Your task to perform on an android device: Empty the shopping cart on costco. Add bose soundsport free to the cart on costco, then select checkout. Image 0: 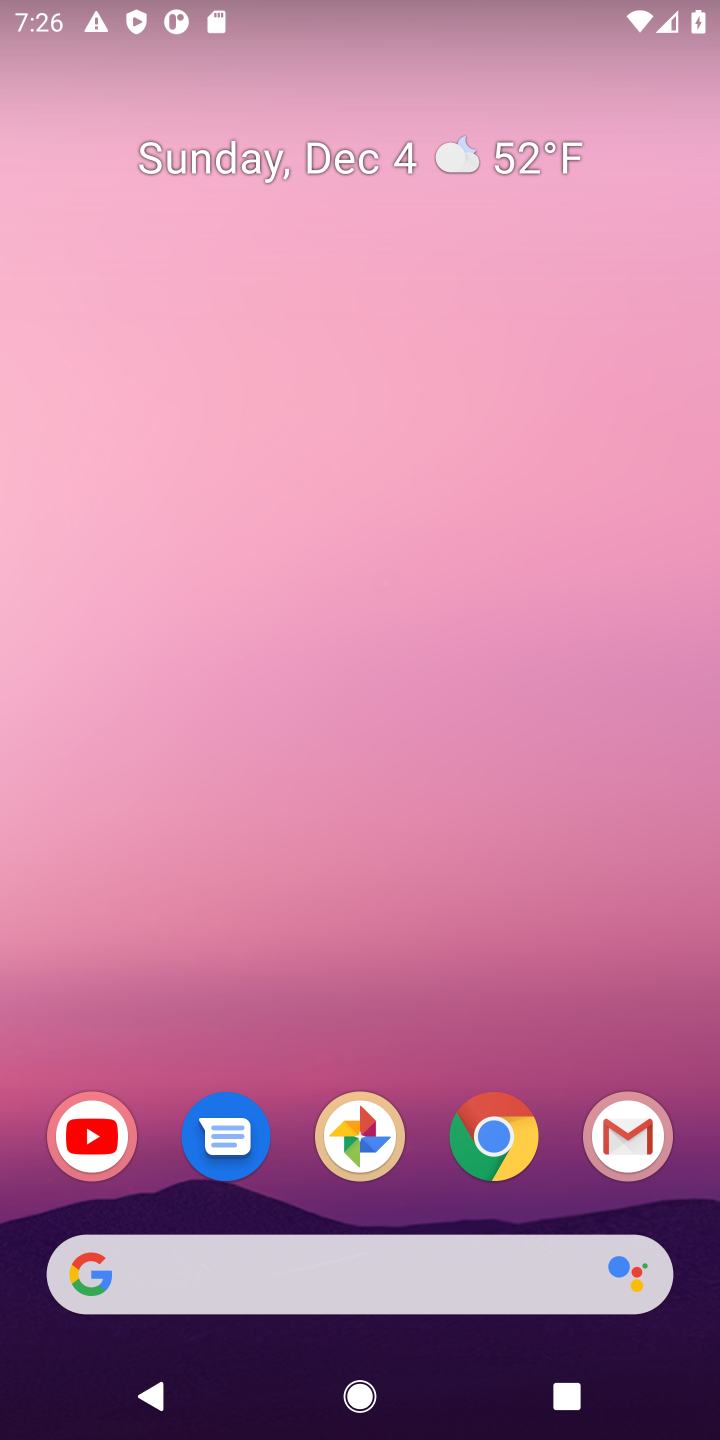
Step 0: click (508, 1136)
Your task to perform on an android device: Empty the shopping cart on costco. Add bose soundsport free to the cart on costco, then select checkout. Image 1: 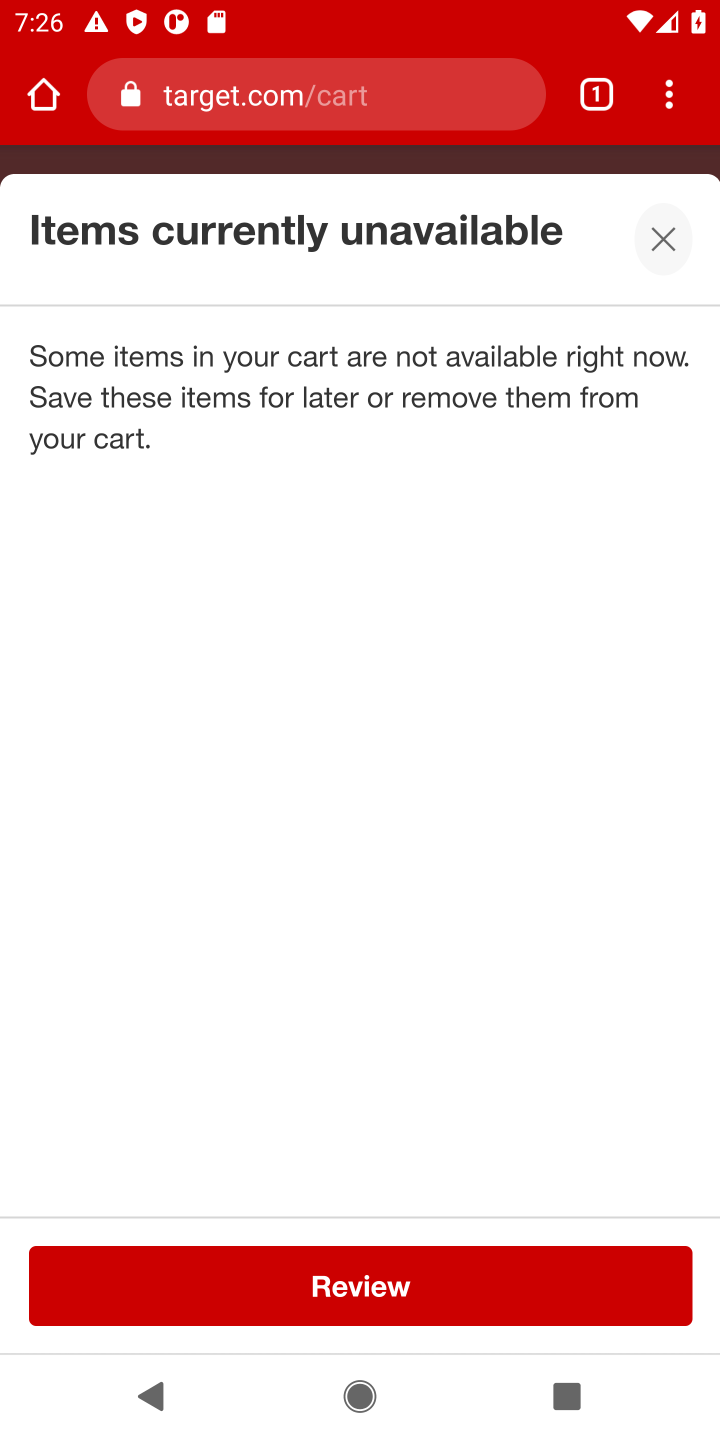
Step 1: click (304, 101)
Your task to perform on an android device: Empty the shopping cart on costco. Add bose soundsport free to the cart on costco, then select checkout. Image 2: 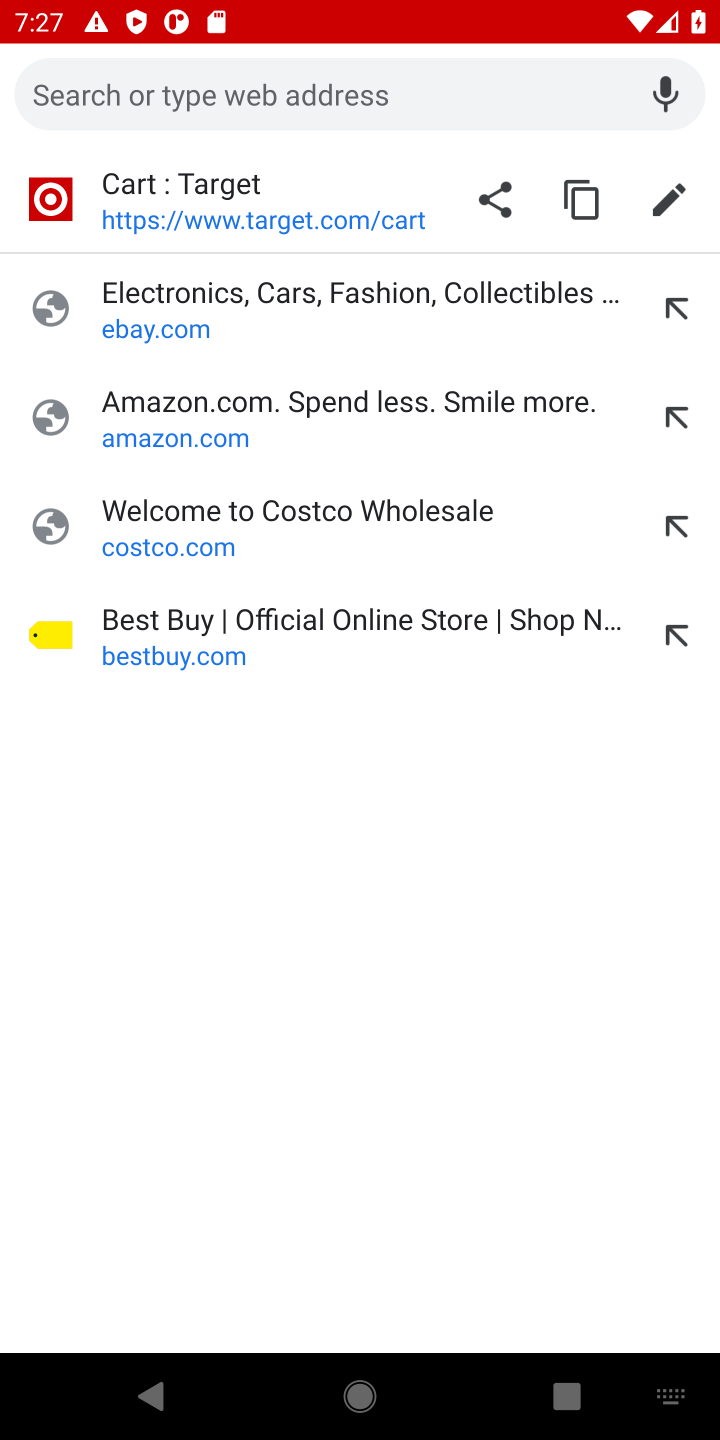
Step 2: click (112, 549)
Your task to perform on an android device: Empty the shopping cart on costco. Add bose soundsport free to the cart on costco, then select checkout. Image 3: 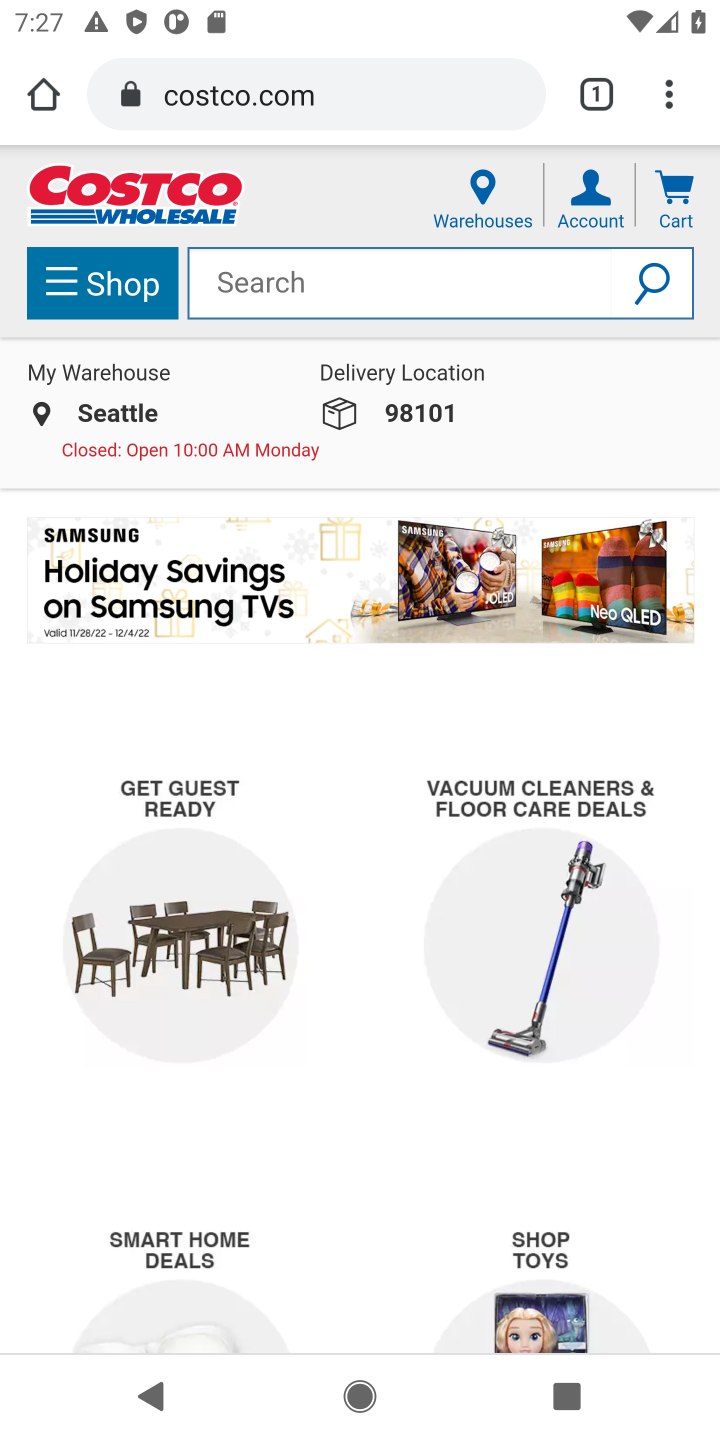
Step 3: click (671, 197)
Your task to perform on an android device: Empty the shopping cart on costco. Add bose soundsport free to the cart on costco, then select checkout. Image 4: 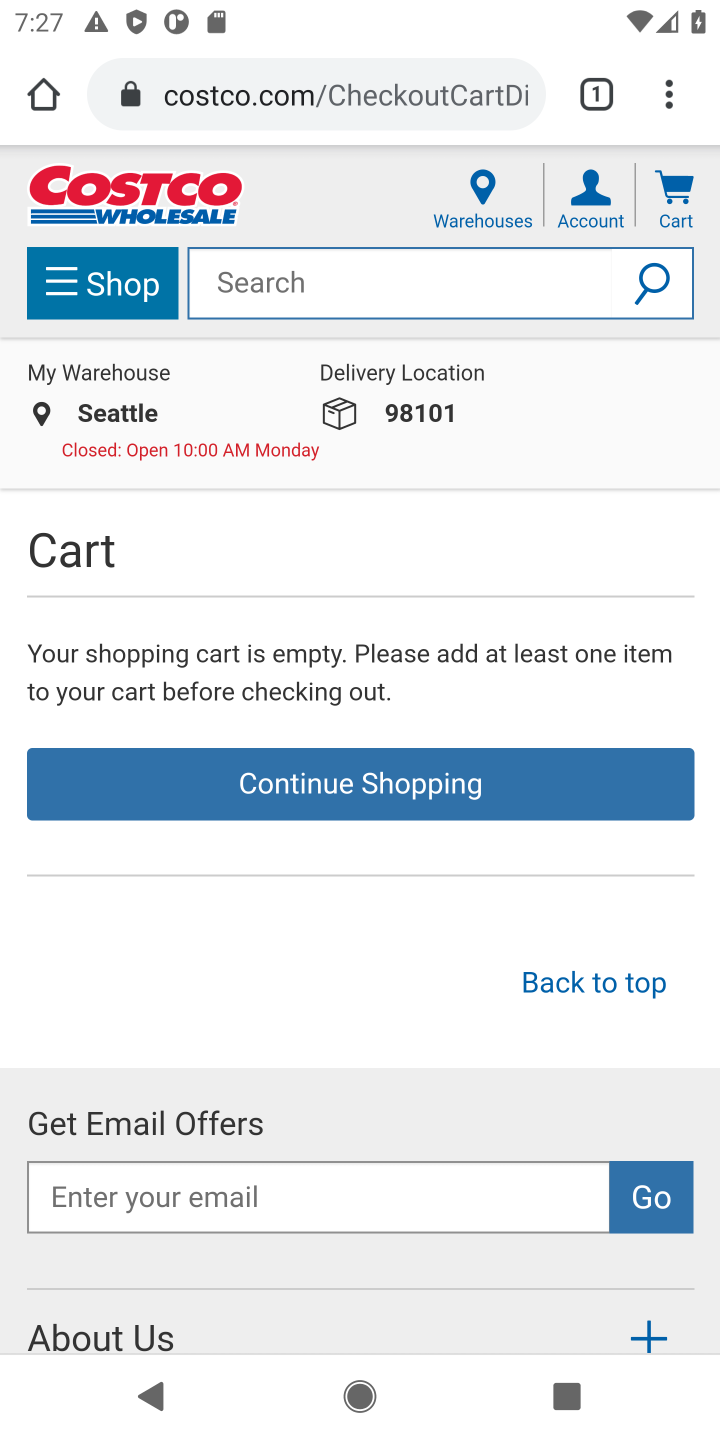
Step 4: click (251, 278)
Your task to perform on an android device: Empty the shopping cart on costco. Add bose soundsport free to the cart on costco, then select checkout. Image 5: 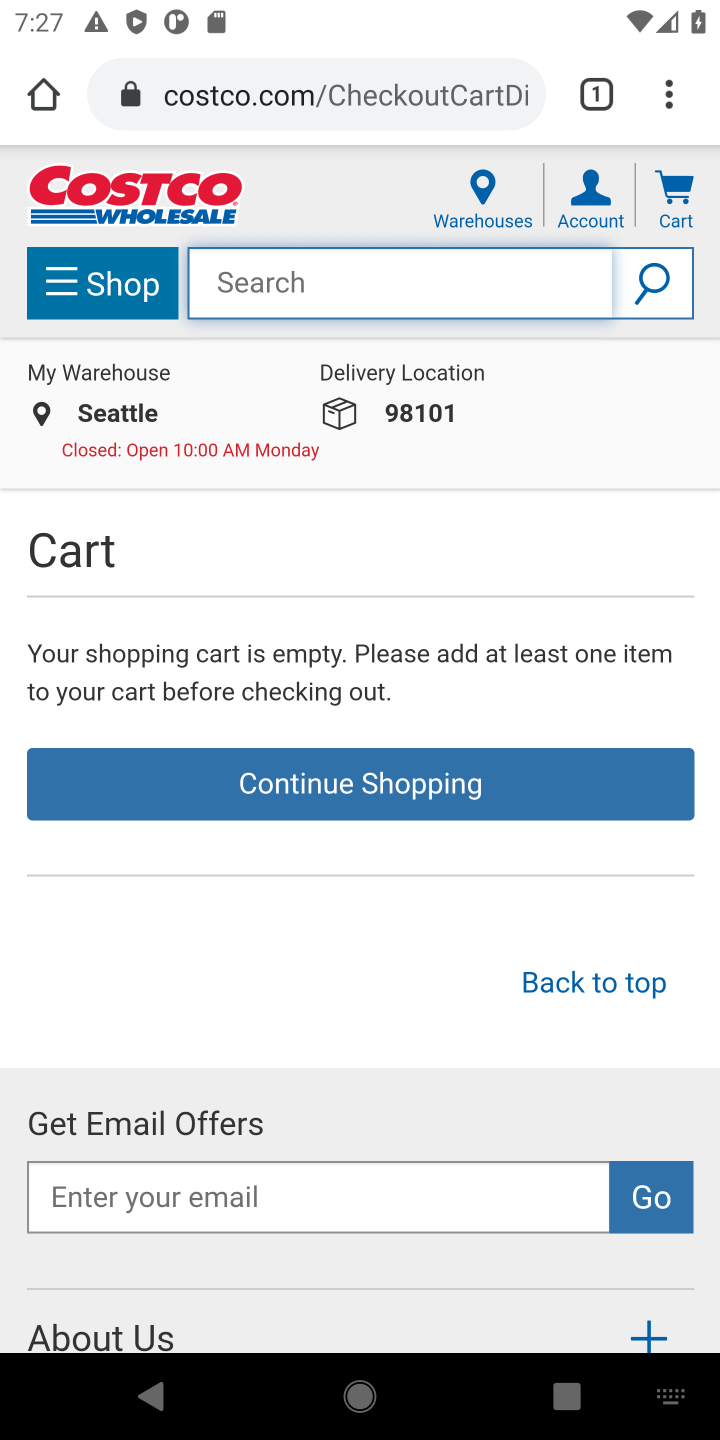
Step 5: type "bose soundsport free "
Your task to perform on an android device: Empty the shopping cart on costco. Add bose soundsport free to the cart on costco, then select checkout. Image 6: 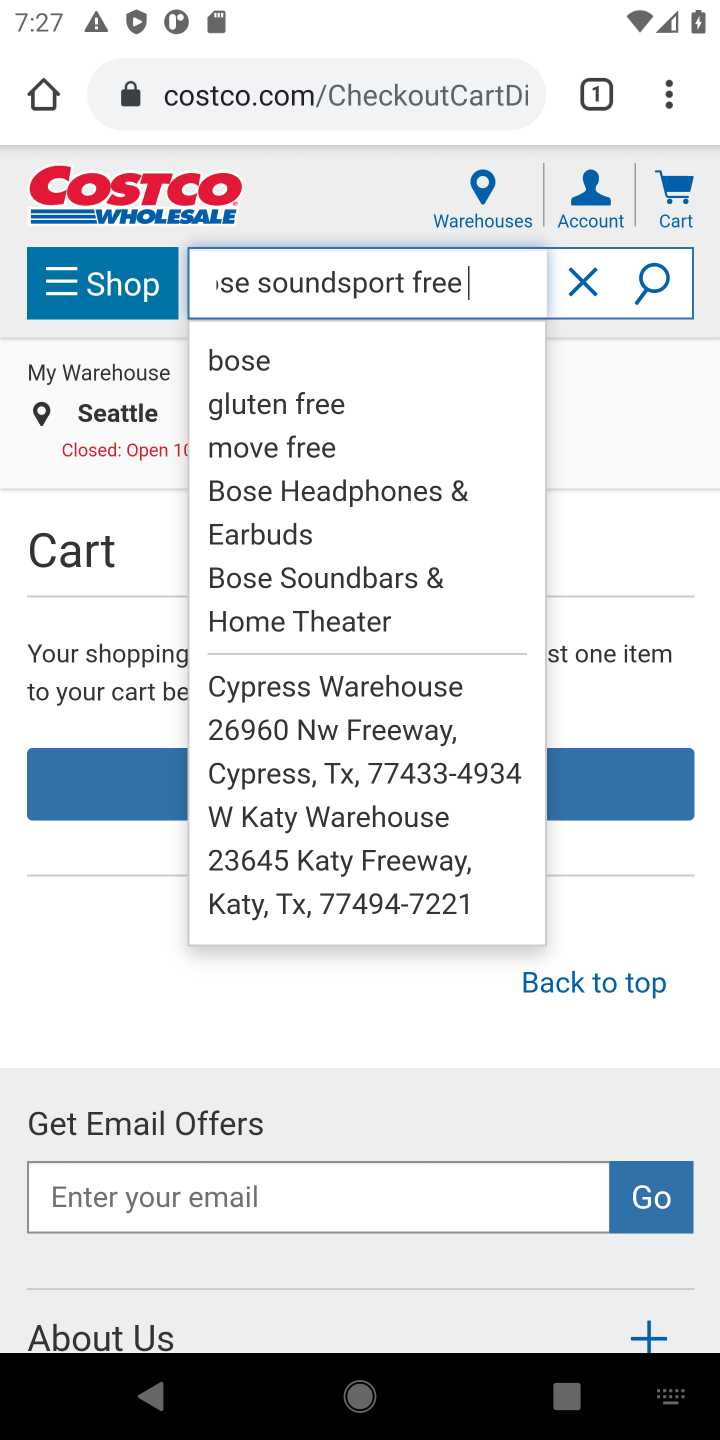
Step 6: click (645, 300)
Your task to perform on an android device: Empty the shopping cart on costco. Add bose soundsport free to the cart on costco, then select checkout. Image 7: 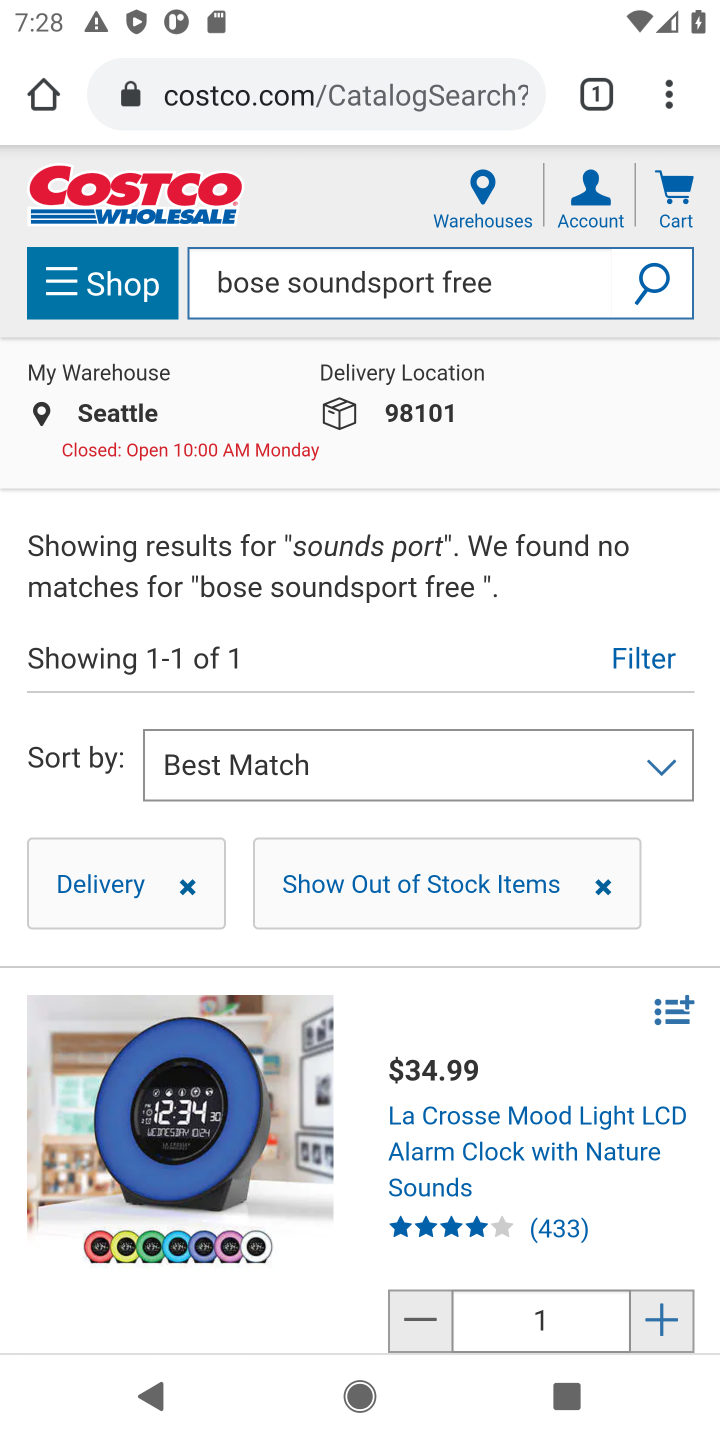
Step 7: task complete